Your task to perform on an android device: search for starred emails in the gmail app Image 0: 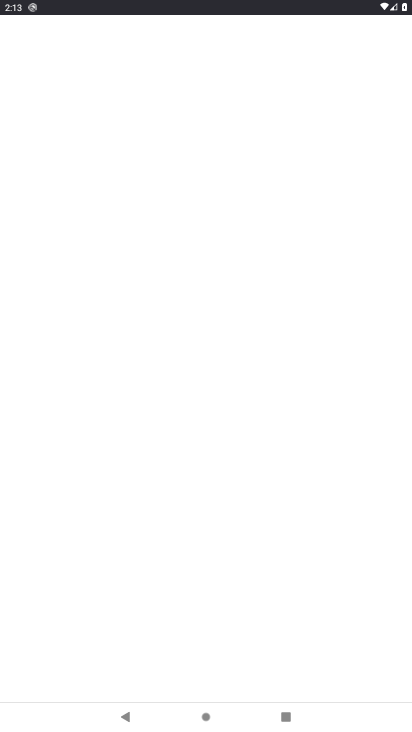
Step 0: click (108, 683)
Your task to perform on an android device: search for starred emails in the gmail app Image 1: 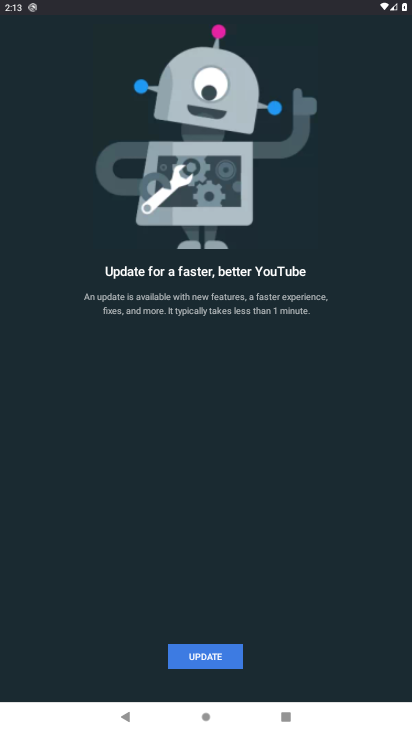
Step 1: press home button
Your task to perform on an android device: search for starred emails in the gmail app Image 2: 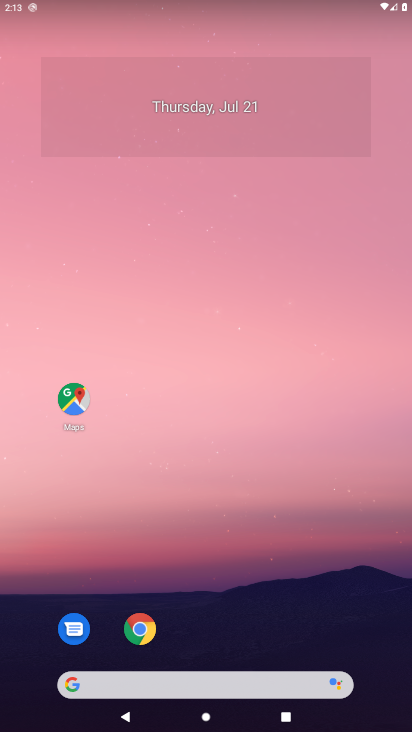
Step 2: drag from (65, 575) to (250, 236)
Your task to perform on an android device: search for starred emails in the gmail app Image 3: 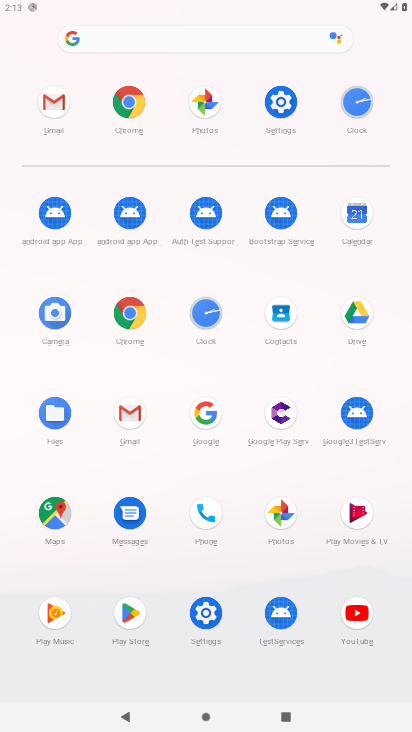
Step 3: click (127, 436)
Your task to perform on an android device: search for starred emails in the gmail app Image 4: 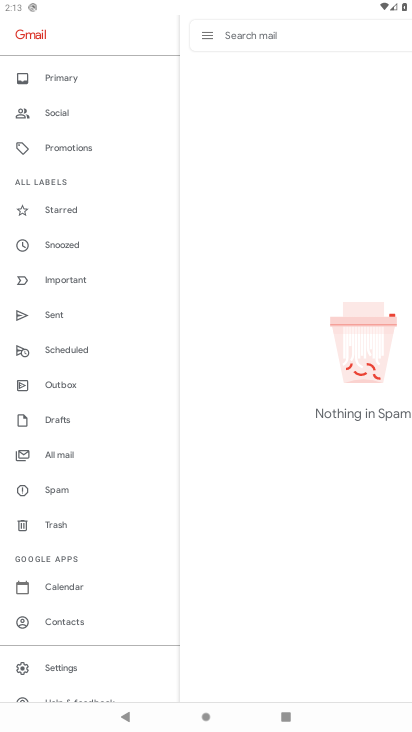
Step 4: click (67, 218)
Your task to perform on an android device: search for starred emails in the gmail app Image 5: 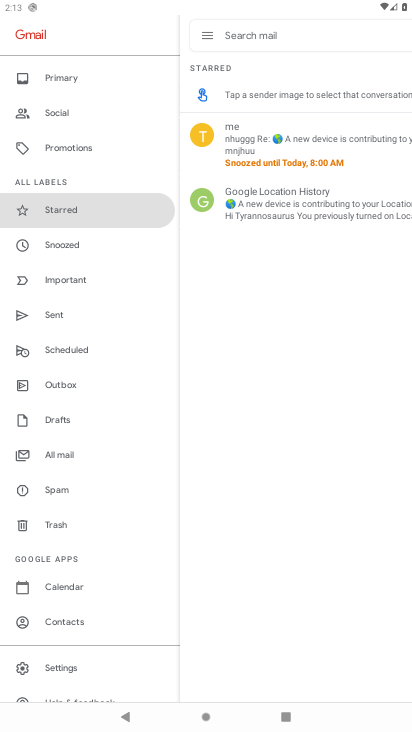
Step 5: task complete